Your task to perform on an android device: Go to wifi settings Image 0: 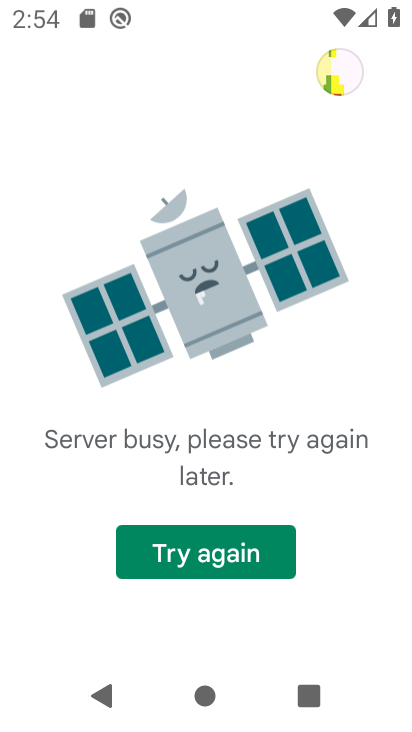
Step 0: press home button
Your task to perform on an android device: Go to wifi settings Image 1: 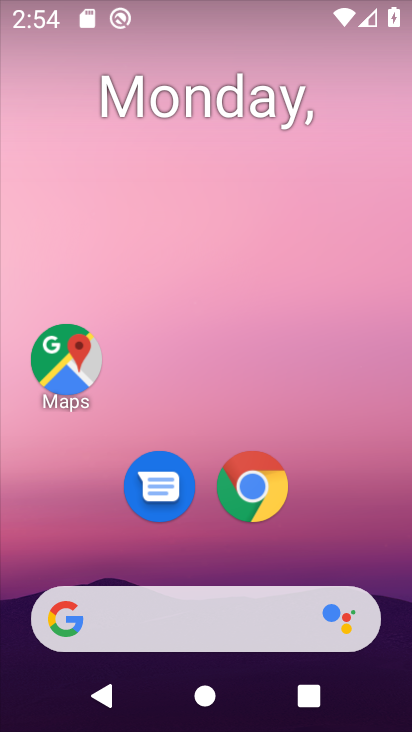
Step 1: drag from (202, 485) to (218, 111)
Your task to perform on an android device: Go to wifi settings Image 2: 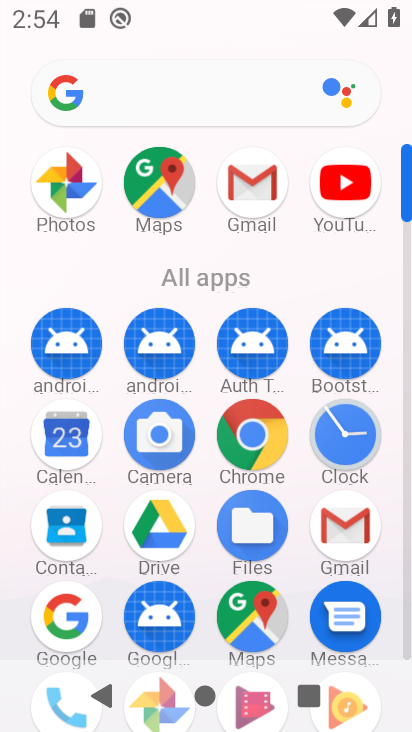
Step 2: drag from (219, 532) to (240, 198)
Your task to perform on an android device: Go to wifi settings Image 3: 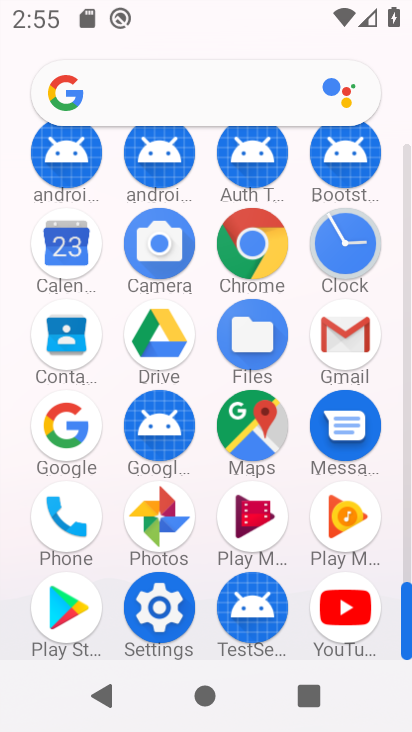
Step 3: click (182, 614)
Your task to perform on an android device: Go to wifi settings Image 4: 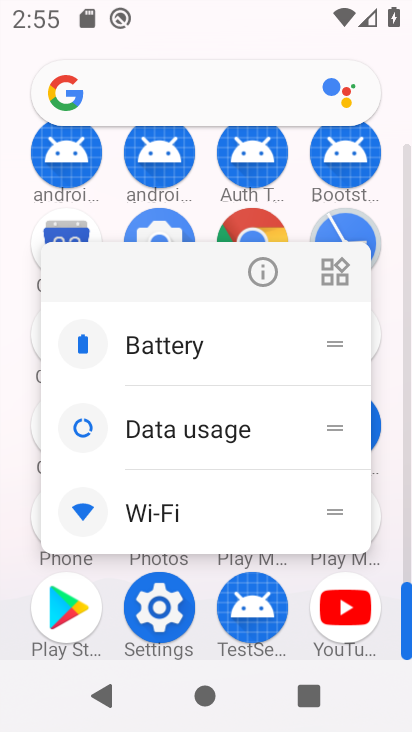
Step 4: click (179, 630)
Your task to perform on an android device: Go to wifi settings Image 5: 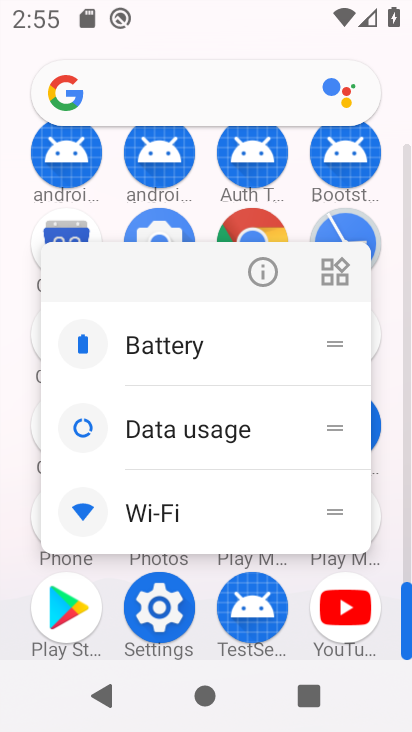
Step 5: click (173, 516)
Your task to perform on an android device: Go to wifi settings Image 6: 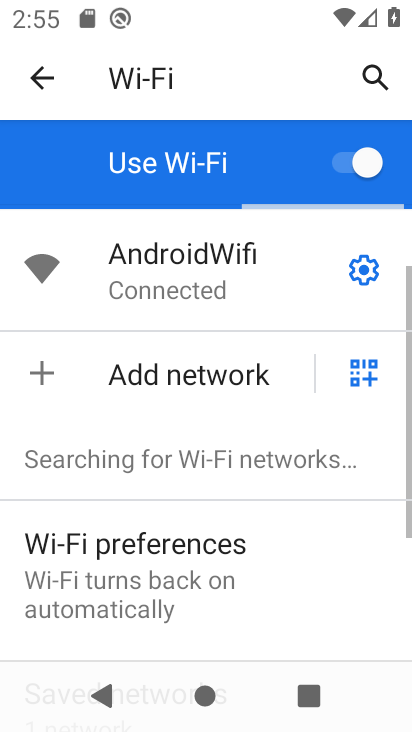
Step 6: task complete